Your task to perform on an android device: check battery use Image 0: 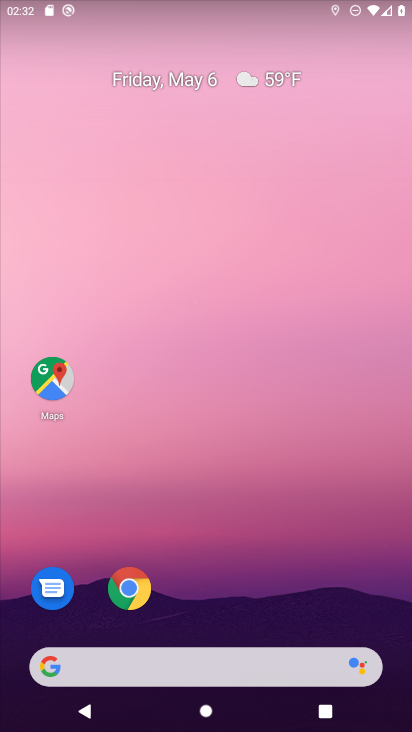
Step 0: drag from (210, 611) to (243, 41)
Your task to perform on an android device: check battery use Image 1: 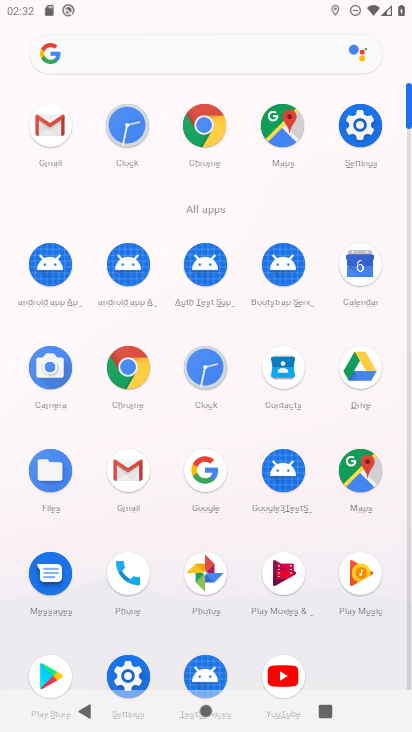
Step 1: click (355, 140)
Your task to perform on an android device: check battery use Image 2: 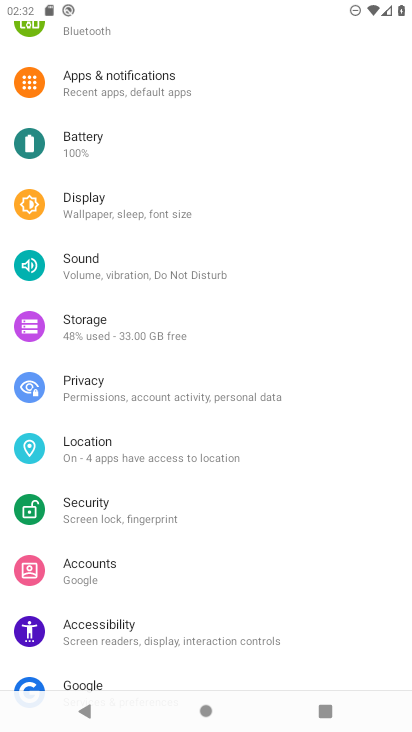
Step 2: click (105, 146)
Your task to perform on an android device: check battery use Image 3: 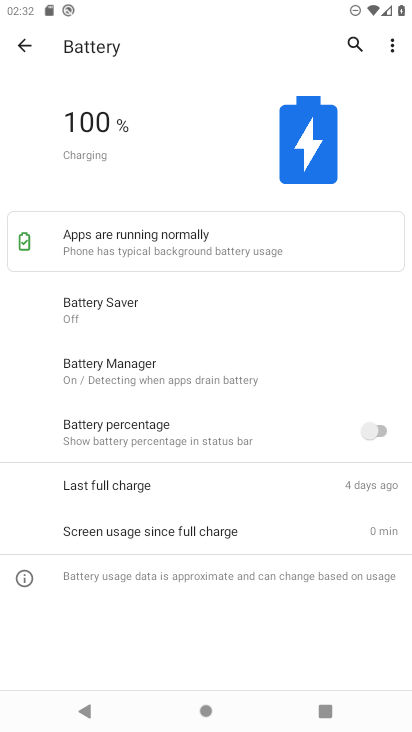
Step 3: click (385, 41)
Your task to perform on an android device: check battery use Image 4: 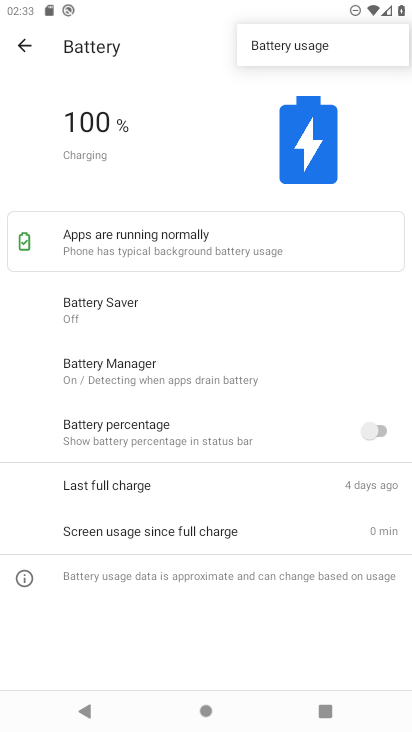
Step 4: click (348, 50)
Your task to perform on an android device: check battery use Image 5: 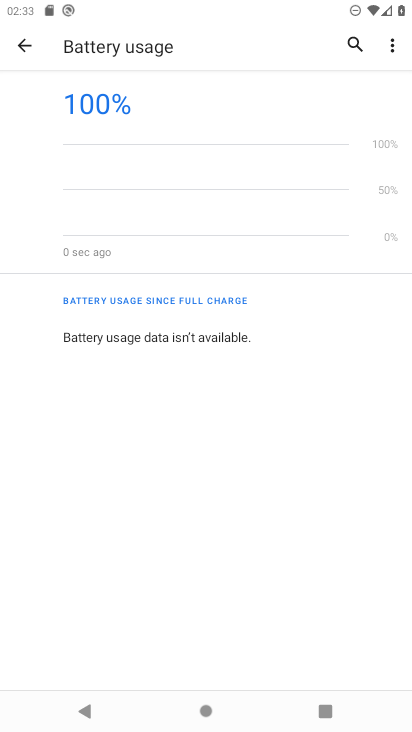
Step 5: task complete